Your task to perform on an android device: Open Amazon Image 0: 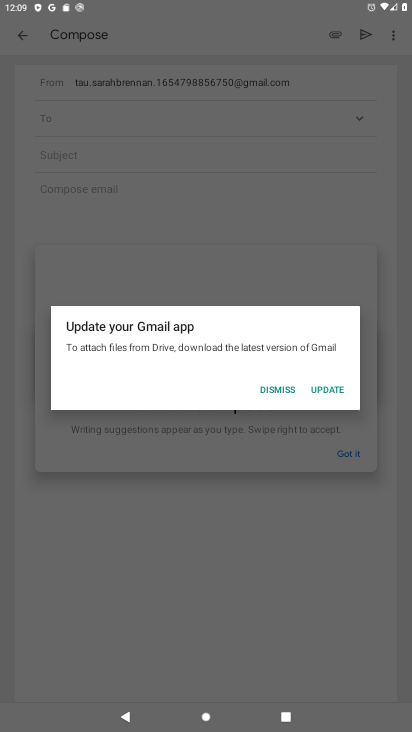
Step 0: press home button
Your task to perform on an android device: Open Amazon Image 1: 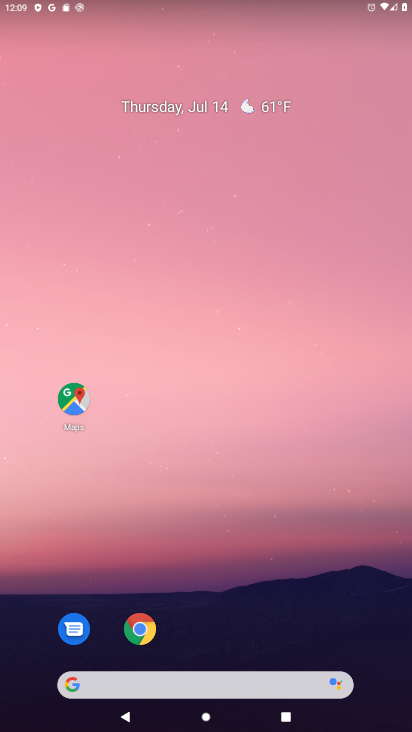
Step 1: click (142, 631)
Your task to perform on an android device: Open Amazon Image 2: 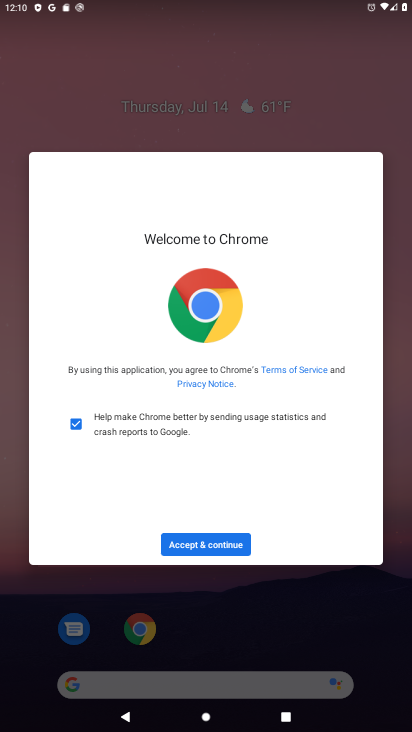
Step 2: click (202, 550)
Your task to perform on an android device: Open Amazon Image 3: 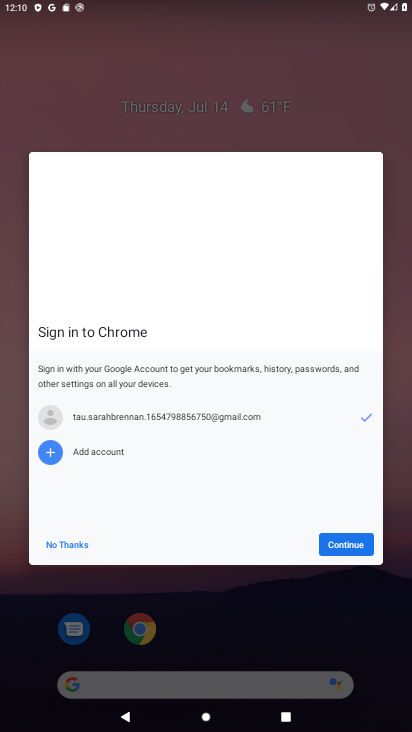
Step 3: click (345, 537)
Your task to perform on an android device: Open Amazon Image 4: 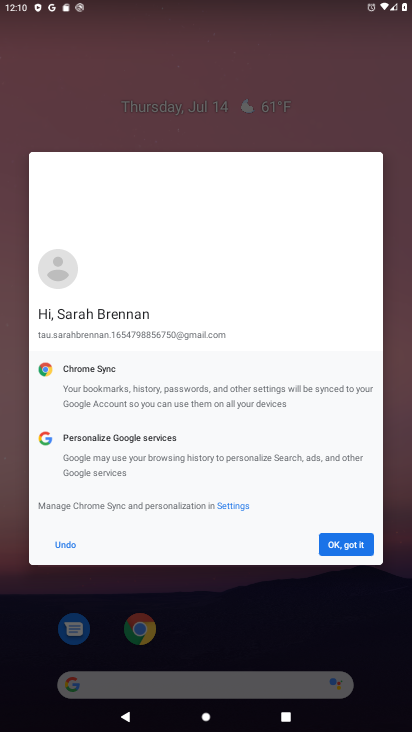
Step 4: click (345, 551)
Your task to perform on an android device: Open Amazon Image 5: 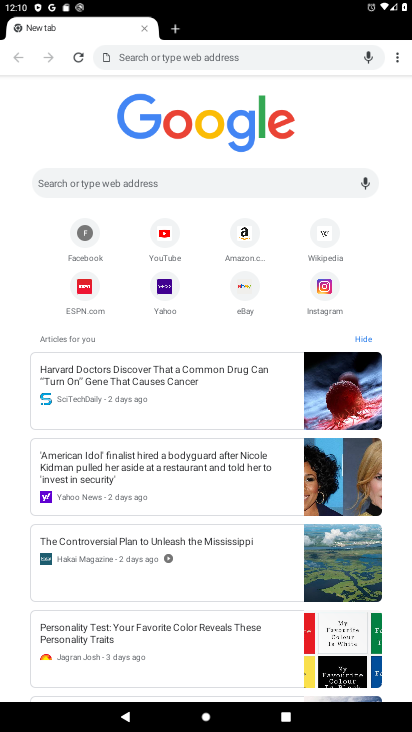
Step 5: click (248, 238)
Your task to perform on an android device: Open Amazon Image 6: 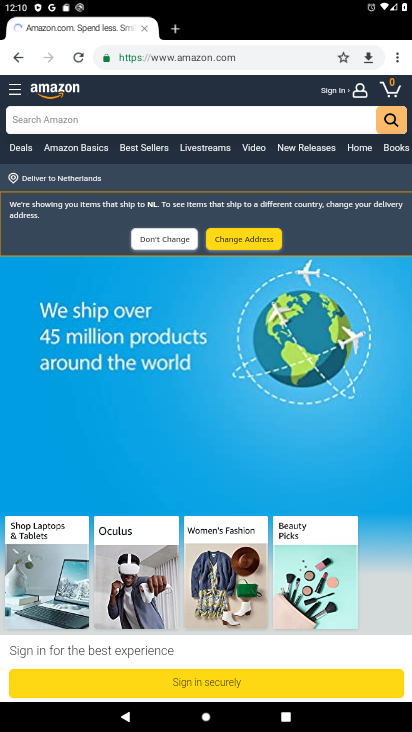
Step 6: task complete